Your task to perform on an android device: open app "Microsoft Outlook" (install if not already installed) and go to login screen Image 0: 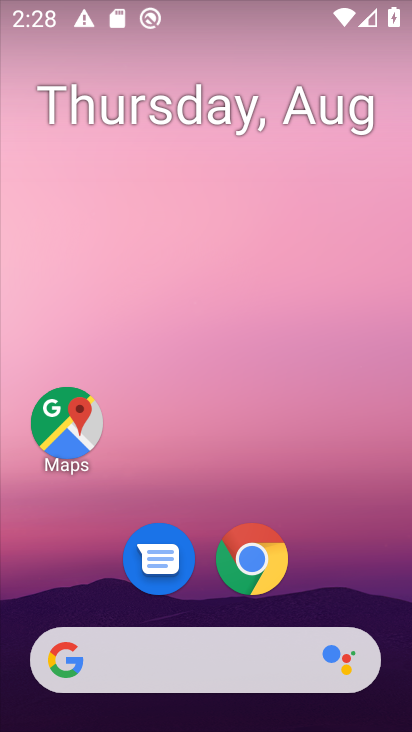
Step 0: drag from (208, 547) to (218, 210)
Your task to perform on an android device: open app "Microsoft Outlook" (install if not already installed) and go to login screen Image 1: 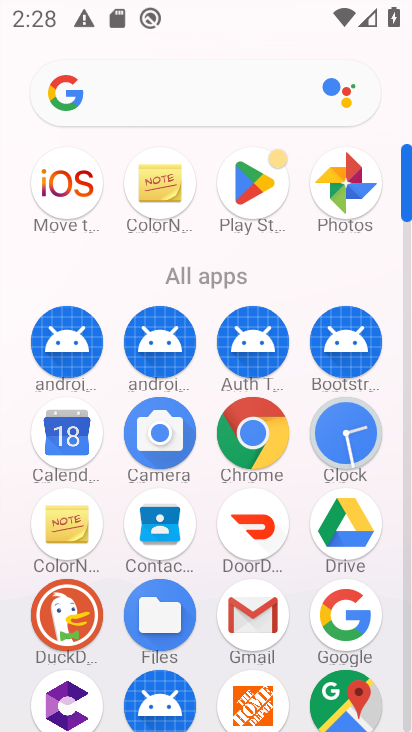
Step 1: click (246, 185)
Your task to perform on an android device: open app "Microsoft Outlook" (install if not already installed) and go to login screen Image 2: 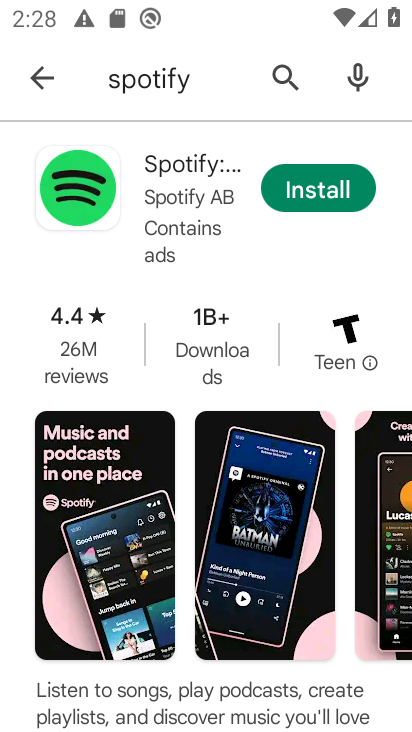
Step 2: click (295, 90)
Your task to perform on an android device: open app "Microsoft Outlook" (install if not already installed) and go to login screen Image 3: 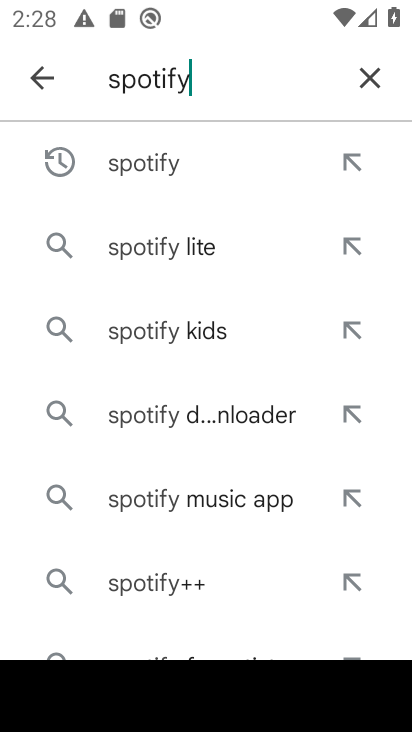
Step 3: click (368, 73)
Your task to perform on an android device: open app "Microsoft Outlook" (install if not already installed) and go to login screen Image 4: 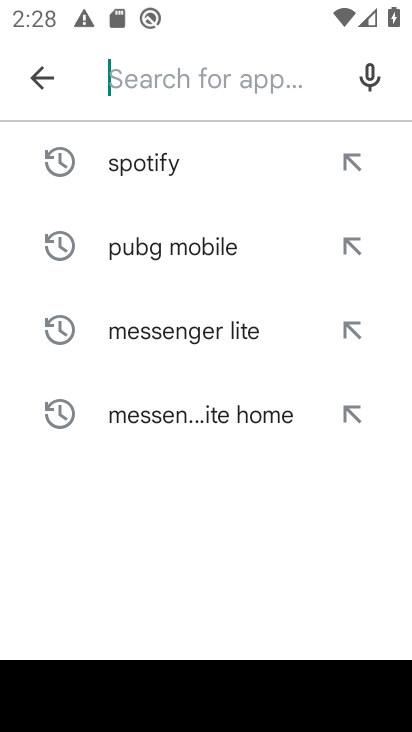
Step 4: click (142, 86)
Your task to perform on an android device: open app "Microsoft Outlook" (install if not already installed) and go to login screen Image 5: 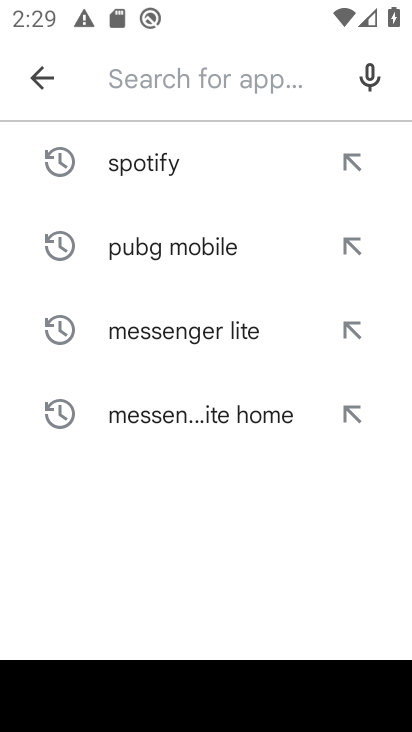
Step 5: type "microsoft"
Your task to perform on an android device: open app "Microsoft Outlook" (install if not already installed) and go to login screen Image 6: 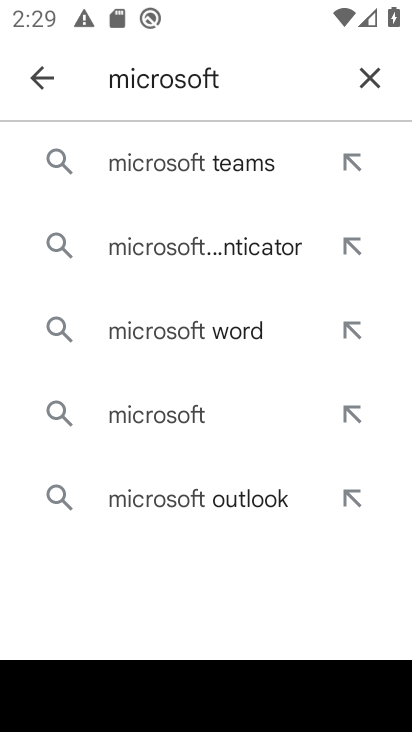
Step 6: click (249, 502)
Your task to perform on an android device: open app "Microsoft Outlook" (install if not already installed) and go to login screen Image 7: 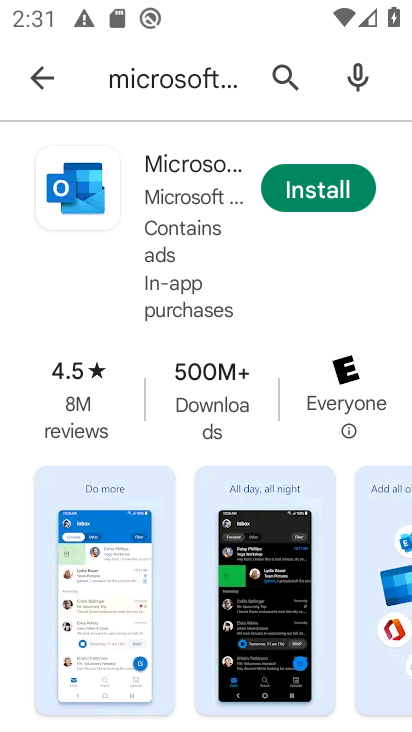
Step 7: click (332, 191)
Your task to perform on an android device: open app "Microsoft Outlook" (install if not already installed) and go to login screen Image 8: 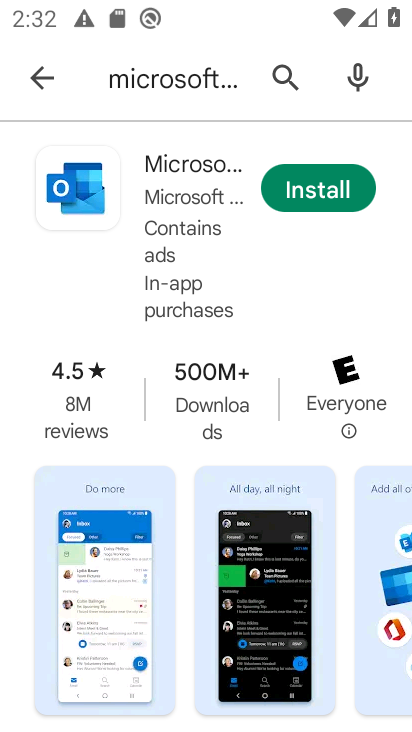
Step 8: click (322, 186)
Your task to perform on an android device: open app "Microsoft Outlook" (install if not already installed) and go to login screen Image 9: 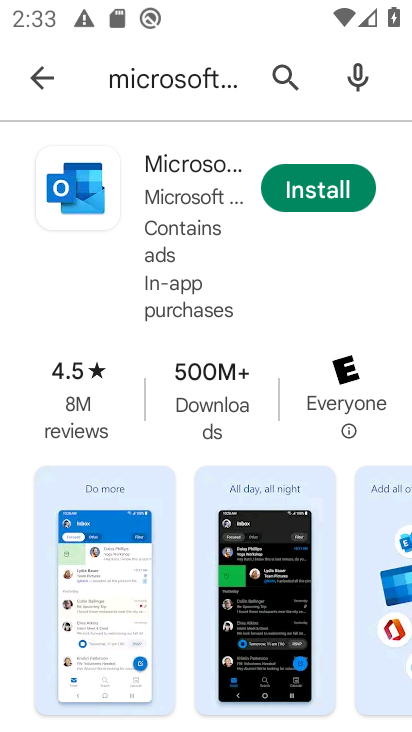
Step 9: task complete